Your task to perform on an android device: Go to Reddit.com Image 0: 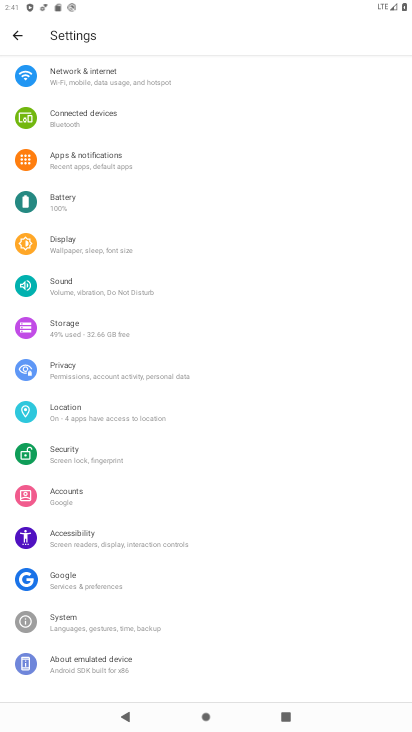
Step 0: press home button
Your task to perform on an android device: Go to Reddit.com Image 1: 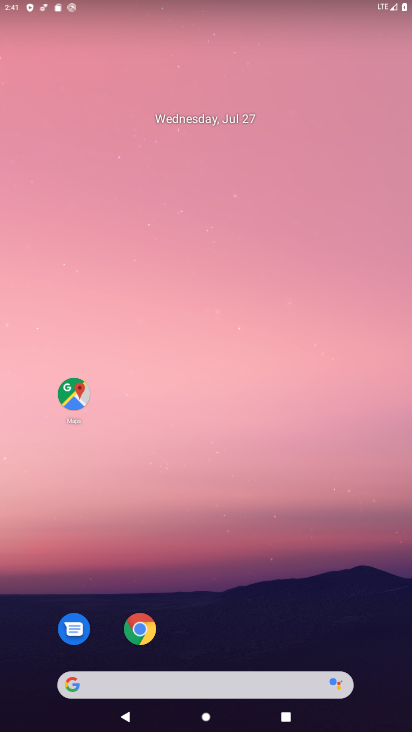
Step 1: click (150, 631)
Your task to perform on an android device: Go to Reddit.com Image 2: 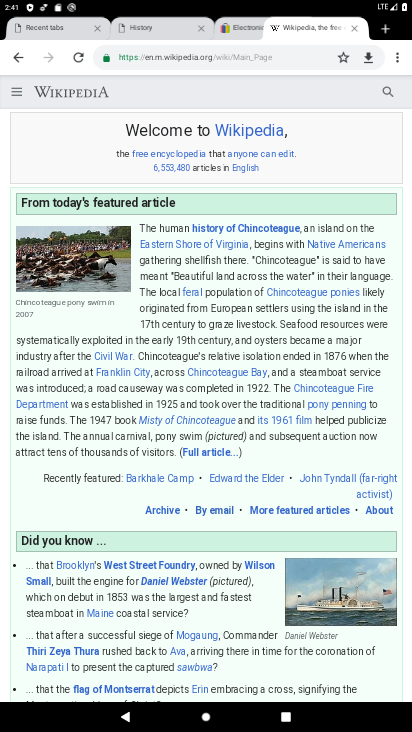
Step 2: click (391, 30)
Your task to perform on an android device: Go to Reddit.com Image 3: 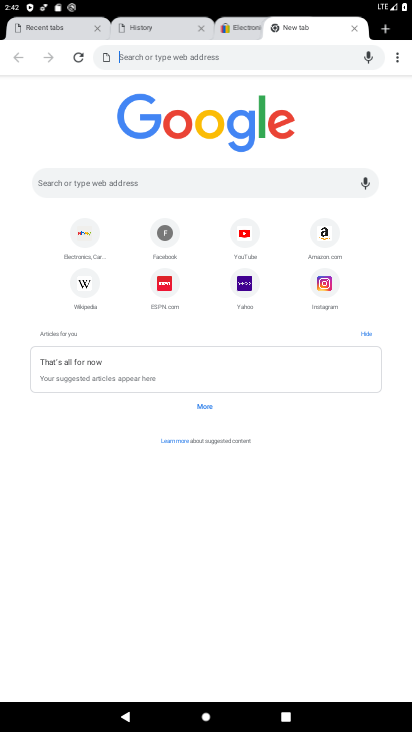
Step 3: click (141, 178)
Your task to perform on an android device: Go to Reddit.com Image 4: 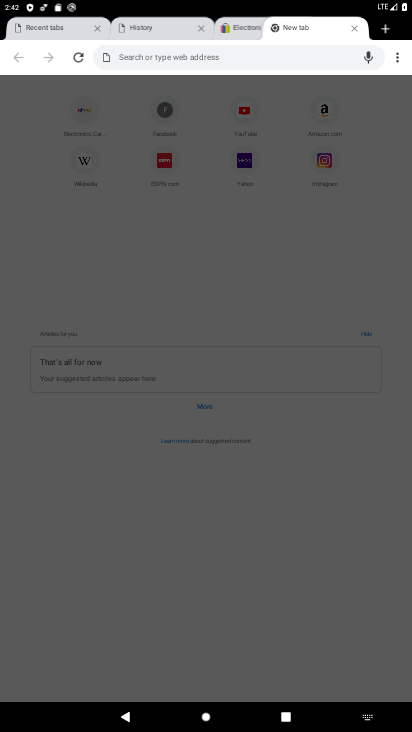
Step 4: type "reddit"
Your task to perform on an android device: Go to Reddit.com Image 5: 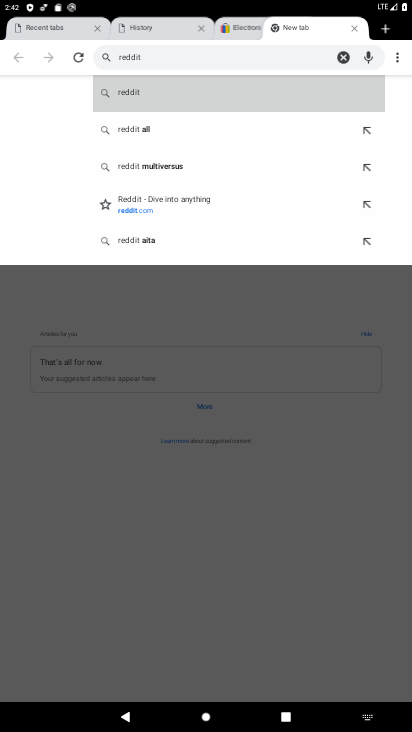
Step 5: click (144, 83)
Your task to perform on an android device: Go to Reddit.com Image 6: 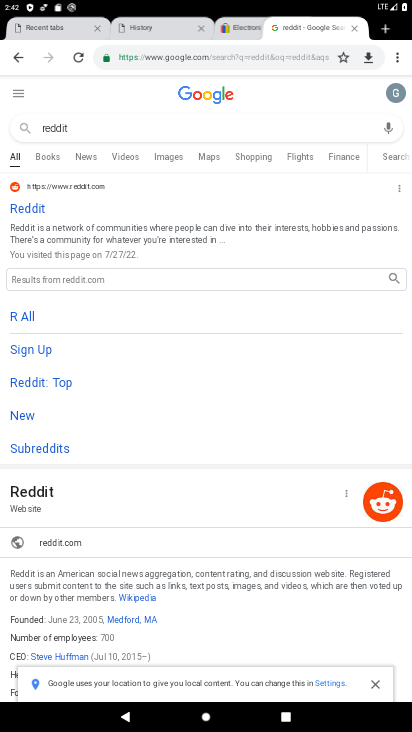
Step 6: click (25, 206)
Your task to perform on an android device: Go to Reddit.com Image 7: 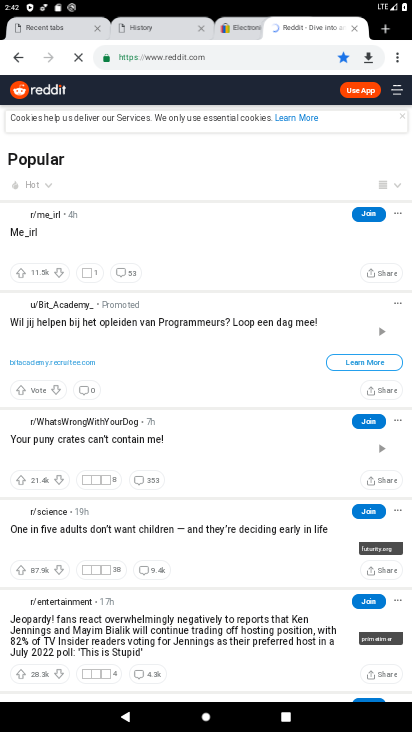
Step 7: task complete